Your task to perform on an android device: Open internet settings Image 0: 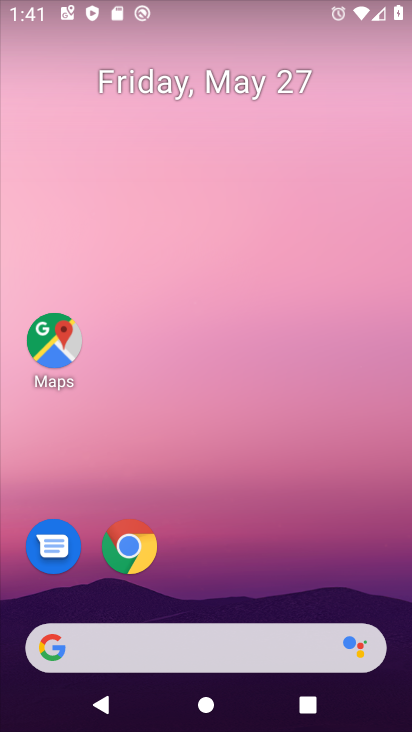
Step 0: press home button
Your task to perform on an android device: Open internet settings Image 1: 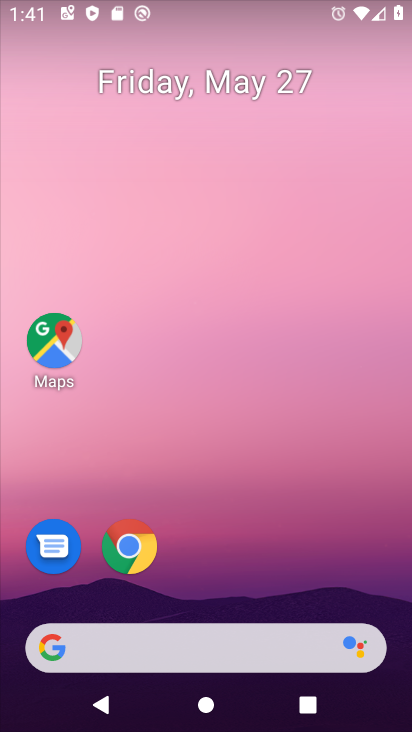
Step 1: drag from (303, 671) to (325, 159)
Your task to perform on an android device: Open internet settings Image 2: 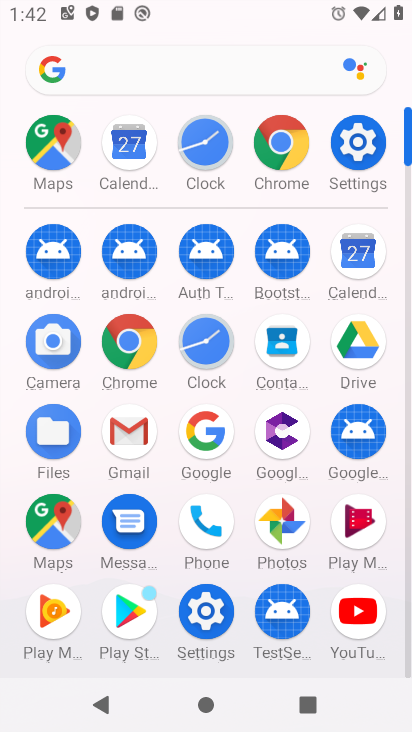
Step 2: click (364, 133)
Your task to perform on an android device: Open internet settings Image 3: 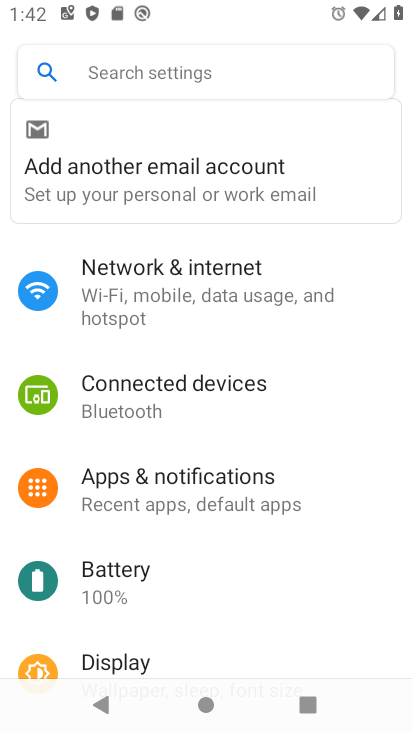
Step 3: click (156, 282)
Your task to perform on an android device: Open internet settings Image 4: 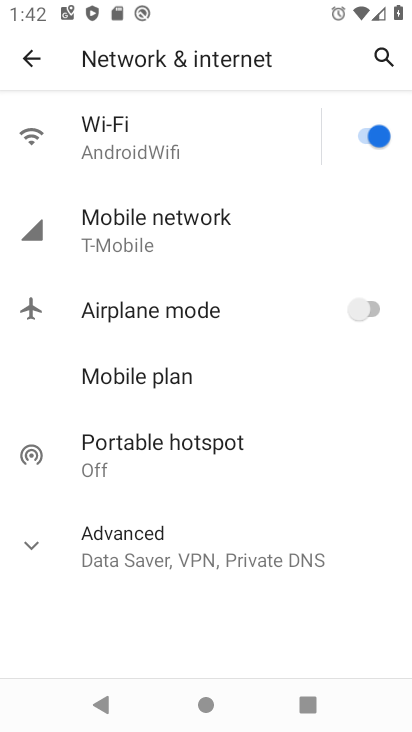
Step 4: task complete